Your task to perform on an android device: What is the news today? Image 0: 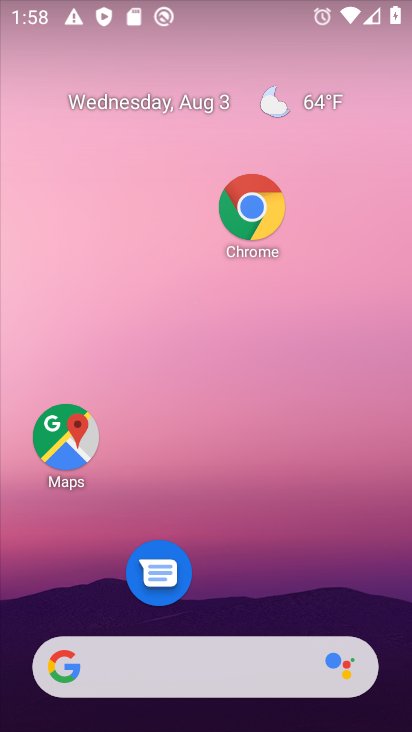
Step 0: drag from (183, 632) to (239, 220)
Your task to perform on an android device: What is the news today? Image 1: 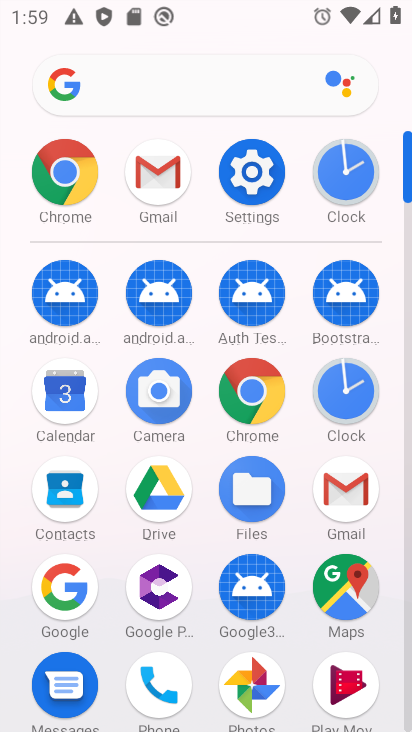
Step 1: click (50, 598)
Your task to perform on an android device: What is the news today? Image 2: 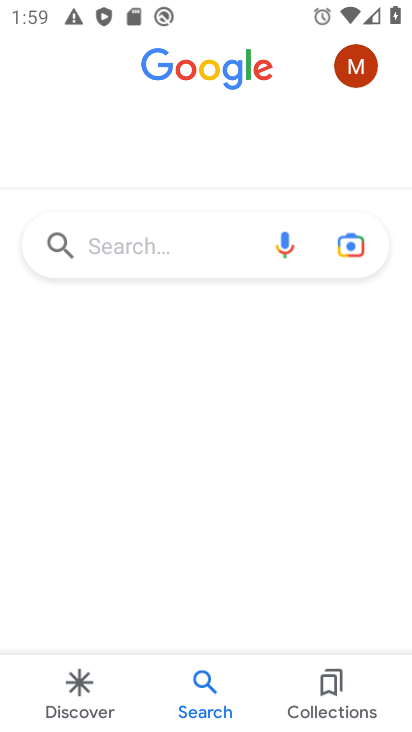
Step 2: click (185, 258)
Your task to perform on an android device: What is the news today? Image 3: 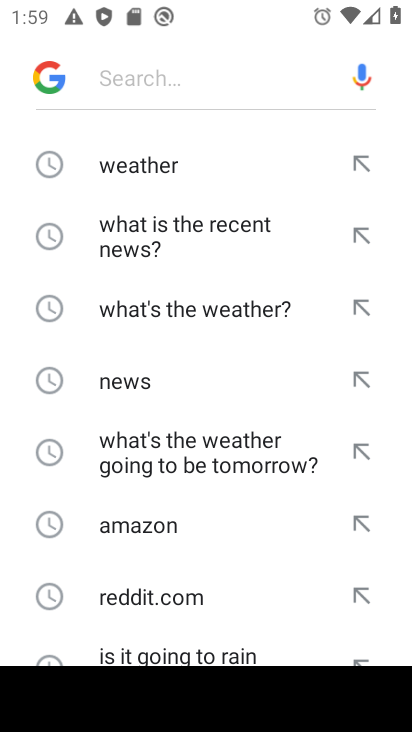
Step 3: click (181, 163)
Your task to perform on an android device: What is the news today? Image 4: 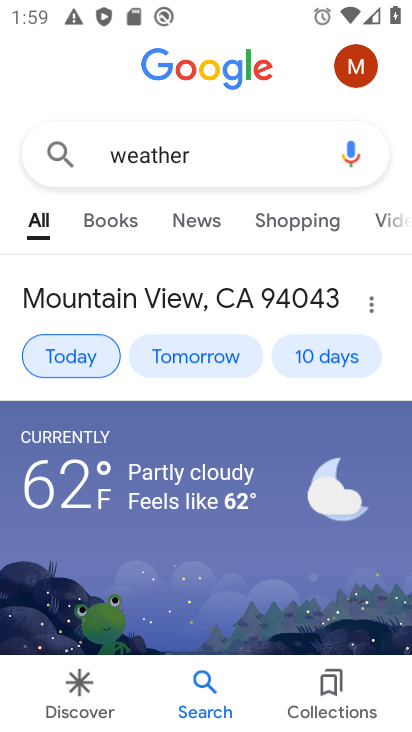
Step 4: click (192, 174)
Your task to perform on an android device: What is the news today? Image 5: 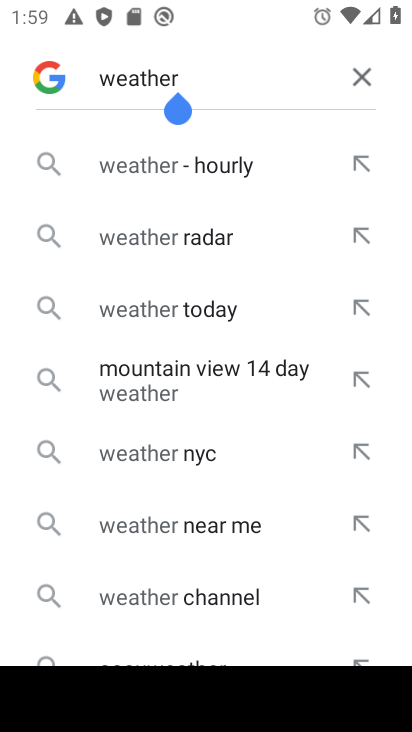
Step 5: click (364, 71)
Your task to perform on an android device: What is the news today? Image 6: 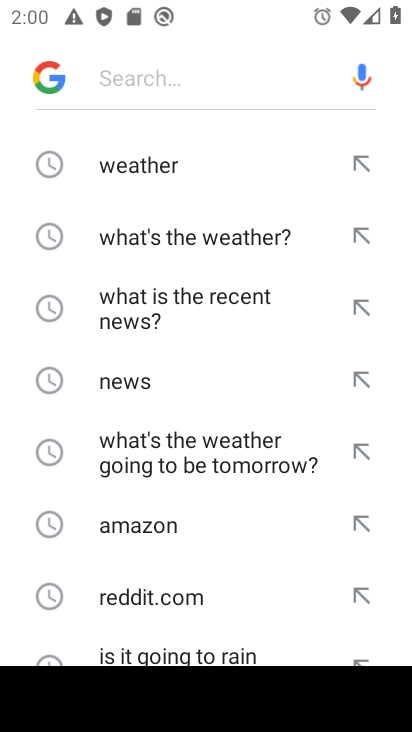
Step 6: click (192, 388)
Your task to perform on an android device: What is the news today? Image 7: 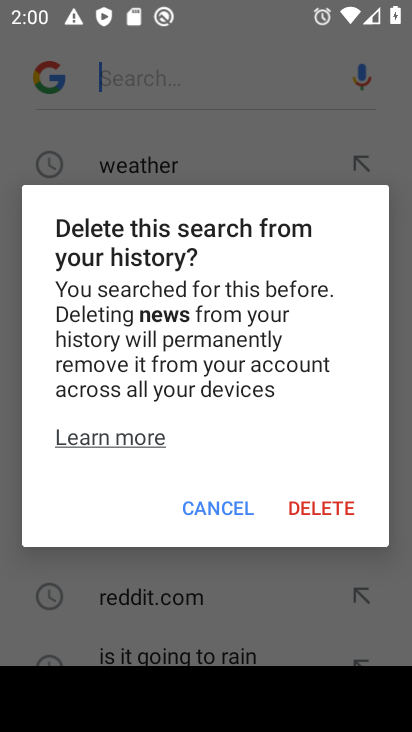
Step 7: click (227, 503)
Your task to perform on an android device: What is the news today? Image 8: 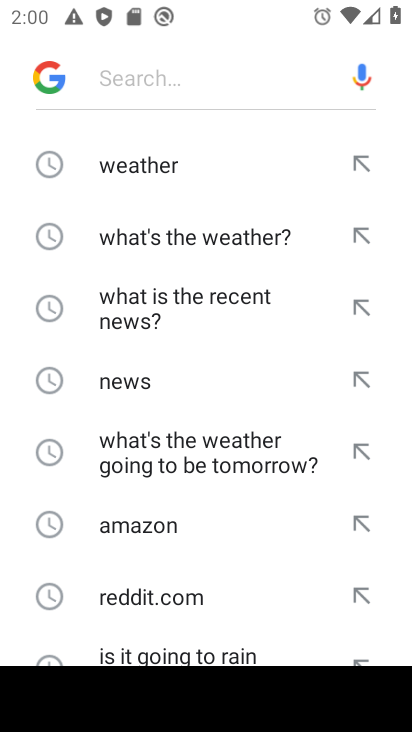
Step 8: click (102, 382)
Your task to perform on an android device: What is the news today? Image 9: 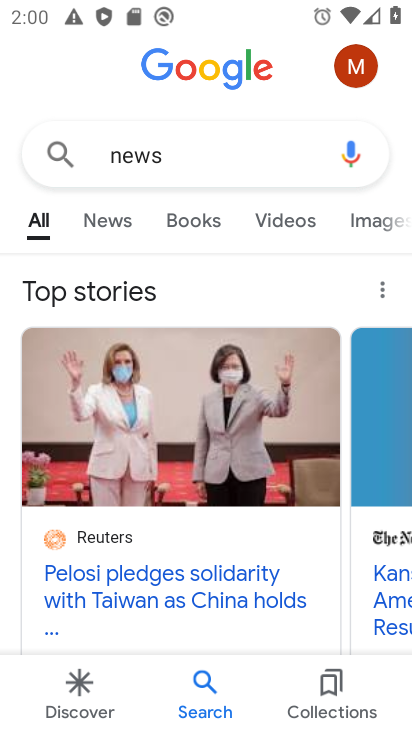
Step 9: click (112, 220)
Your task to perform on an android device: What is the news today? Image 10: 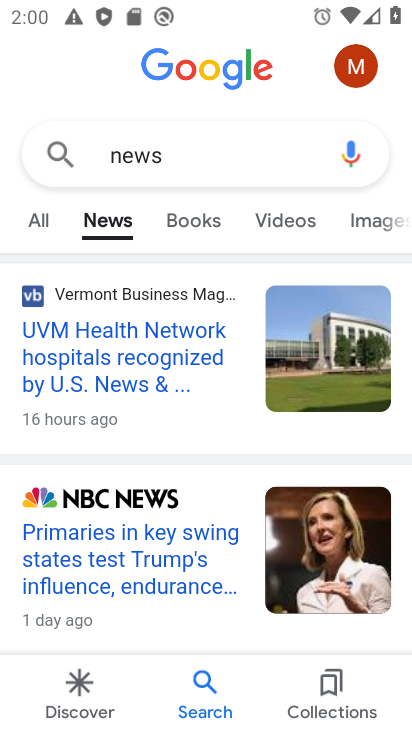
Step 10: task complete